Your task to perform on an android device: toggle show notifications on the lock screen Image 0: 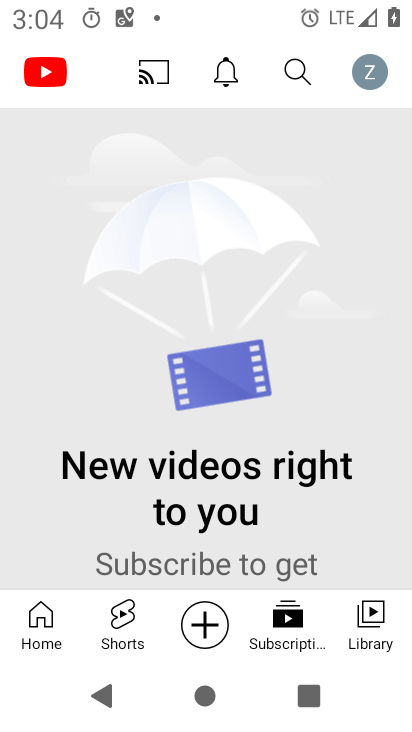
Step 0: press home button
Your task to perform on an android device: toggle show notifications on the lock screen Image 1: 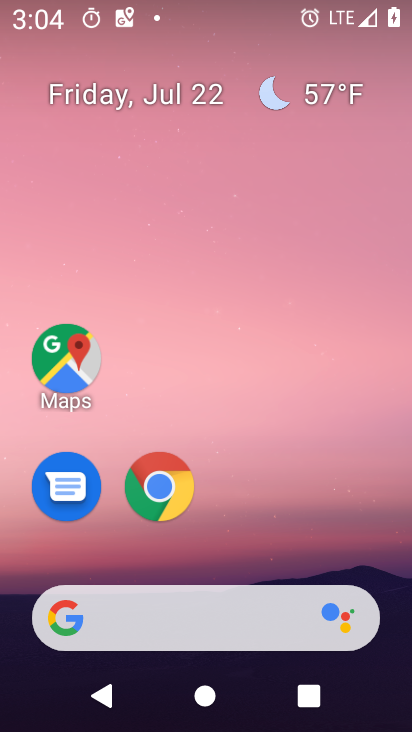
Step 1: drag from (376, 534) to (359, 168)
Your task to perform on an android device: toggle show notifications on the lock screen Image 2: 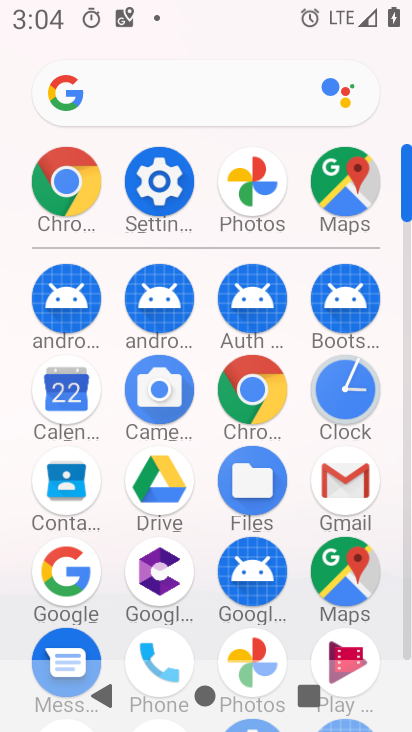
Step 2: click (170, 194)
Your task to perform on an android device: toggle show notifications on the lock screen Image 3: 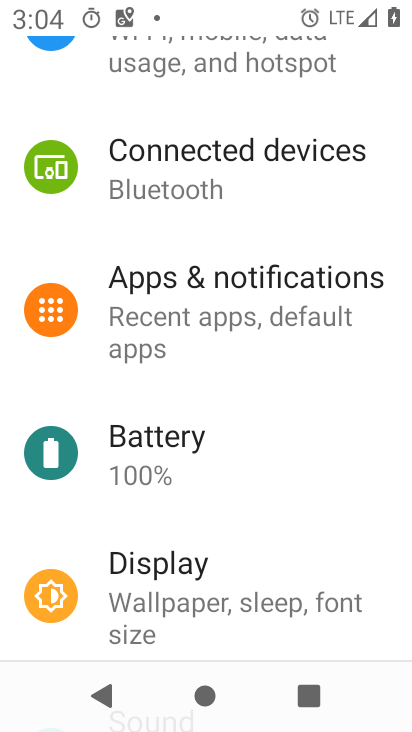
Step 3: drag from (314, 212) to (318, 286)
Your task to perform on an android device: toggle show notifications on the lock screen Image 4: 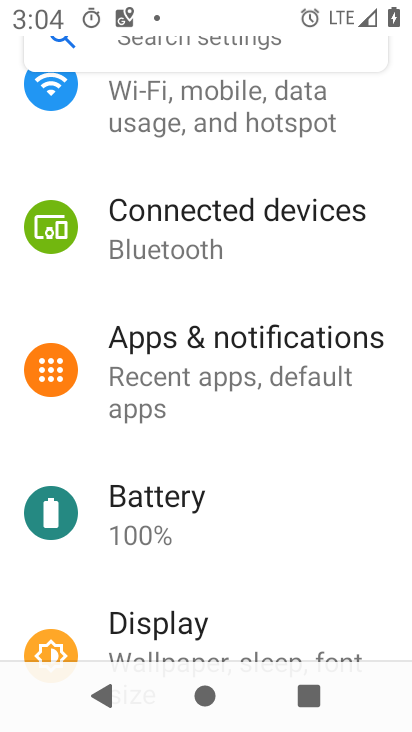
Step 4: drag from (373, 169) to (378, 311)
Your task to perform on an android device: toggle show notifications on the lock screen Image 5: 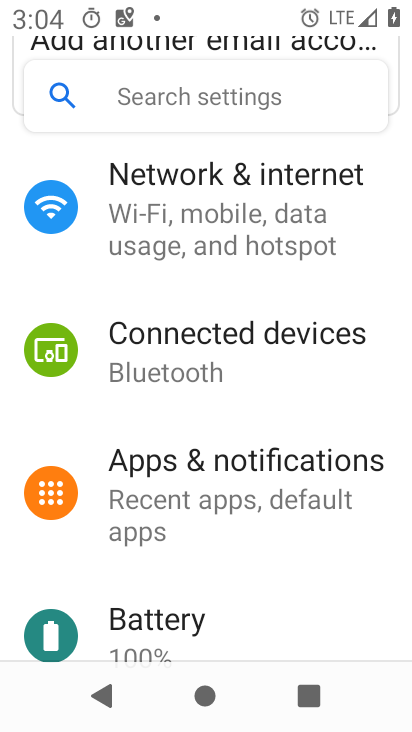
Step 5: drag from (370, 238) to (370, 453)
Your task to perform on an android device: toggle show notifications on the lock screen Image 6: 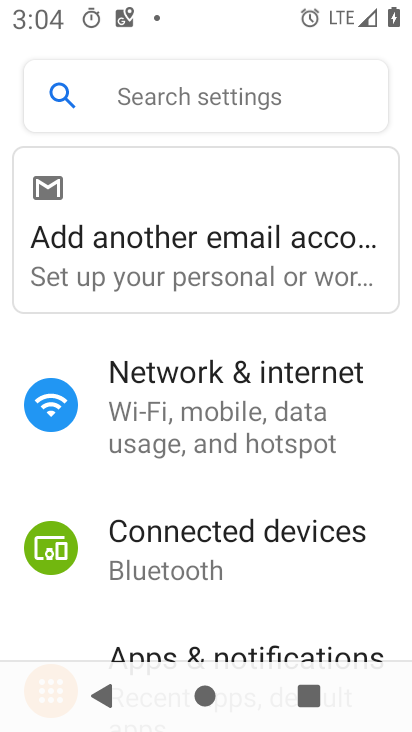
Step 6: drag from (360, 590) to (361, 511)
Your task to perform on an android device: toggle show notifications on the lock screen Image 7: 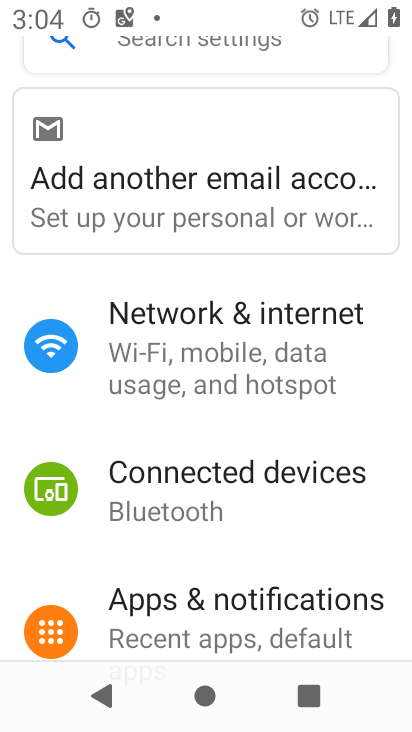
Step 7: drag from (352, 574) to (347, 443)
Your task to perform on an android device: toggle show notifications on the lock screen Image 8: 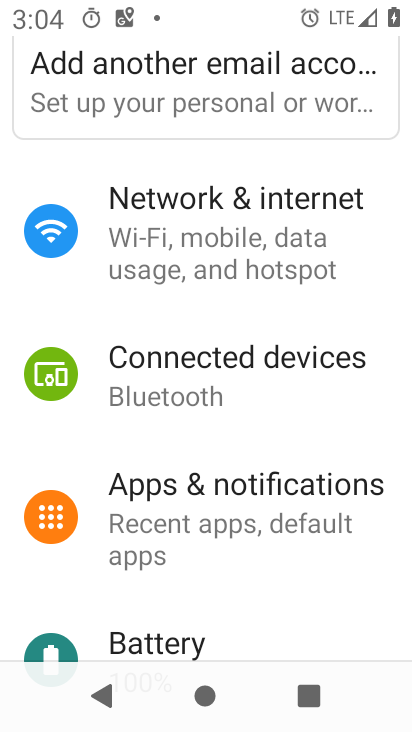
Step 8: click (333, 497)
Your task to perform on an android device: toggle show notifications on the lock screen Image 9: 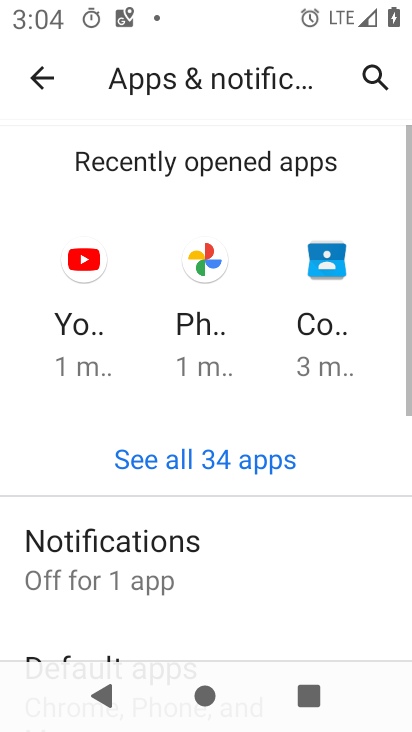
Step 9: drag from (319, 530) to (318, 443)
Your task to perform on an android device: toggle show notifications on the lock screen Image 10: 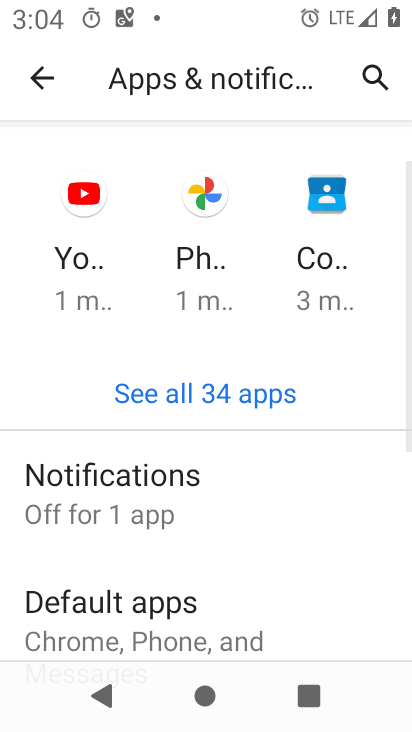
Step 10: drag from (310, 541) to (322, 425)
Your task to perform on an android device: toggle show notifications on the lock screen Image 11: 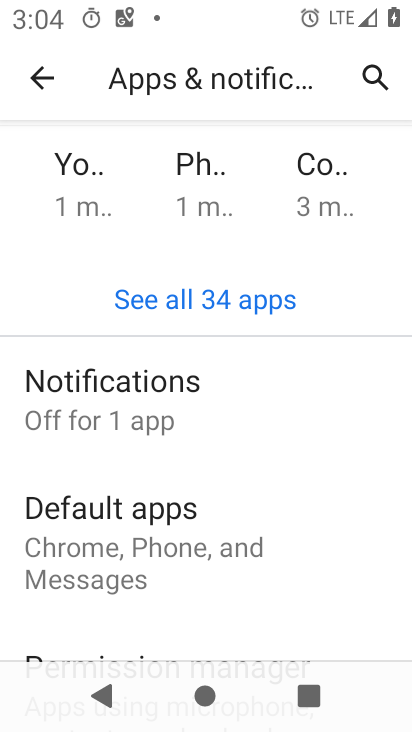
Step 11: click (289, 391)
Your task to perform on an android device: toggle show notifications on the lock screen Image 12: 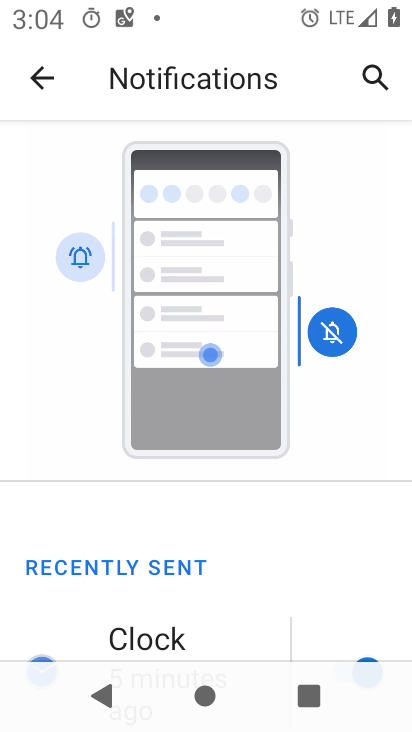
Step 12: drag from (308, 505) to (314, 391)
Your task to perform on an android device: toggle show notifications on the lock screen Image 13: 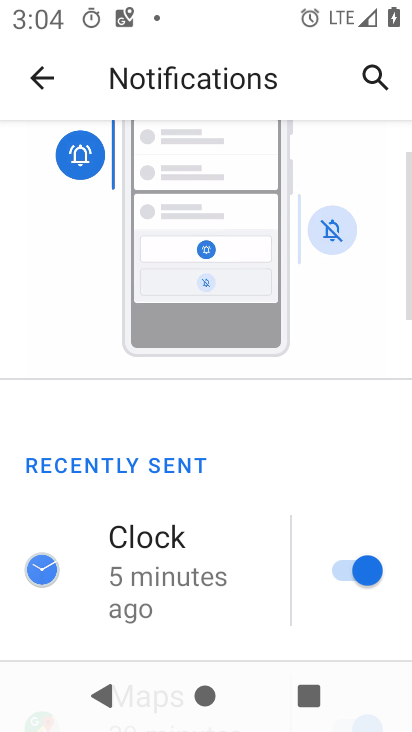
Step 13: drag from (260, 534) to (258, 420)
Your task to perform on an android device: toggle show notifications on the lock screen Image 14: 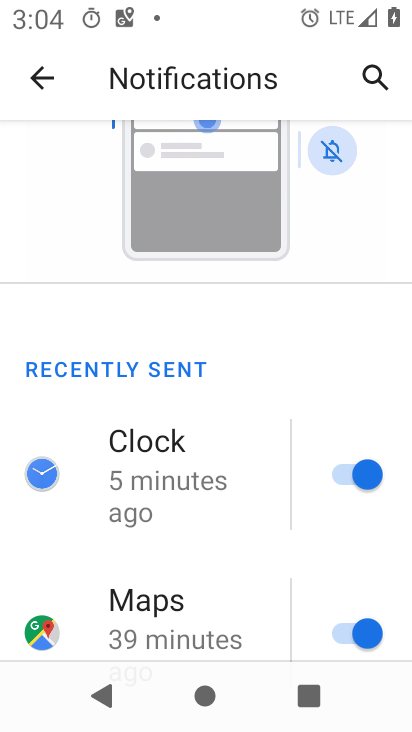
Step 14: drag from (238, 549) to (242, 427)
Your task to perform on an android device: toggle show notifications on the lock screen Image 15: 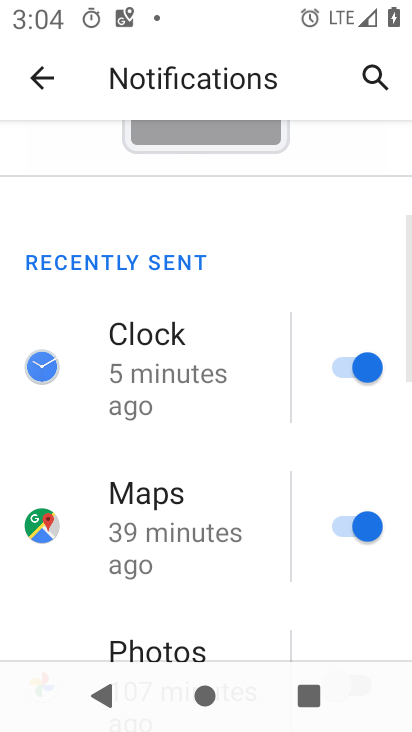
Step 15: drag from (235, 594) to (238, 471)
Your task to perform on an android device: toggle show notifications on the lock screen Image 16: 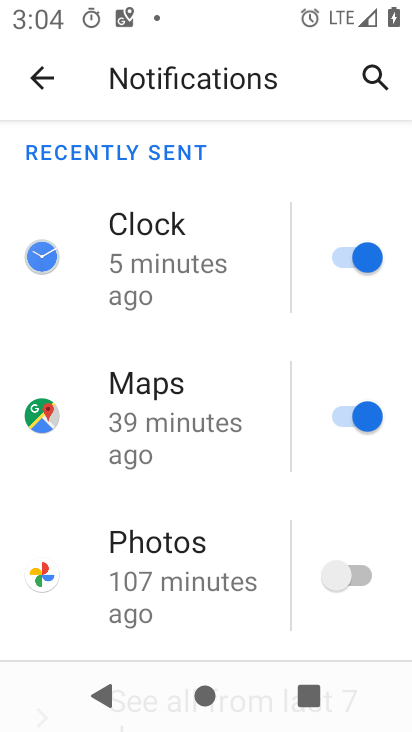
Step 16: drag from (252, 628) to (250, 497)
Your task to perform on an android device: toggle show notifications on the lock screen Image 17: 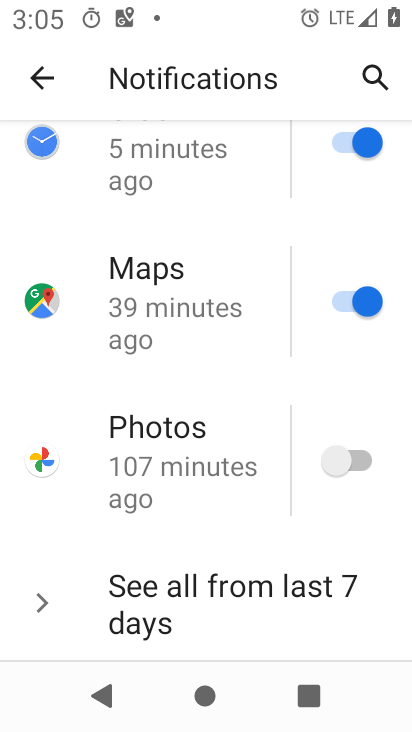
Step 17: drag from (252, 598) to (255, 491)
Your task to perform on an android device: toggle show notifications on the lock screen Image 18: 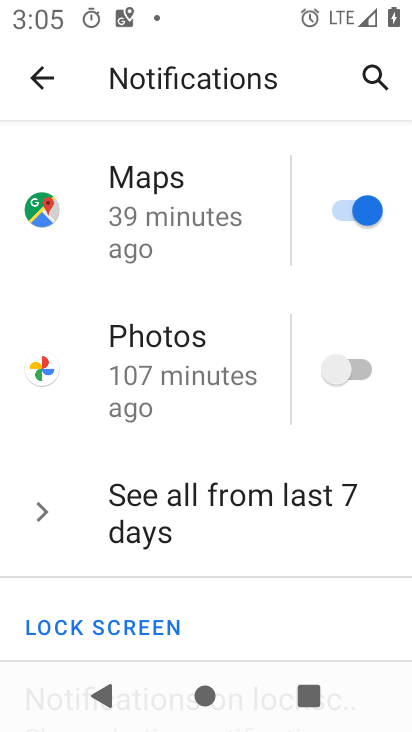
Step 18: drag from (245, 594) to (241, 472)
Your task to perform on an android device: toggle show notifications on the lock screen Image 19: 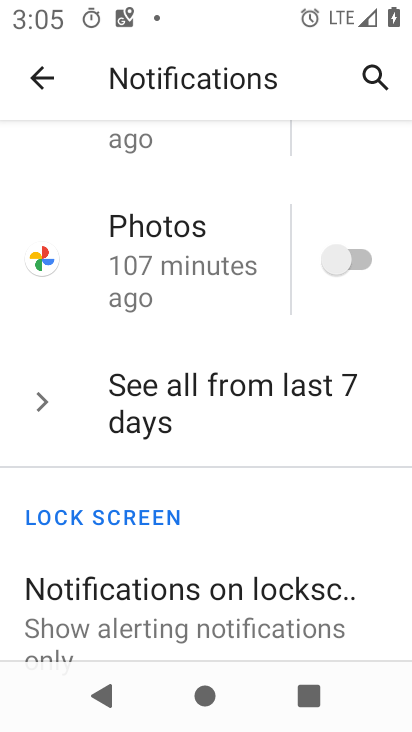
Step 19: drag from (248, 601) to (249, 463)
Your task to perform on an android device: toggle show notifications on the lock screen Image 20: 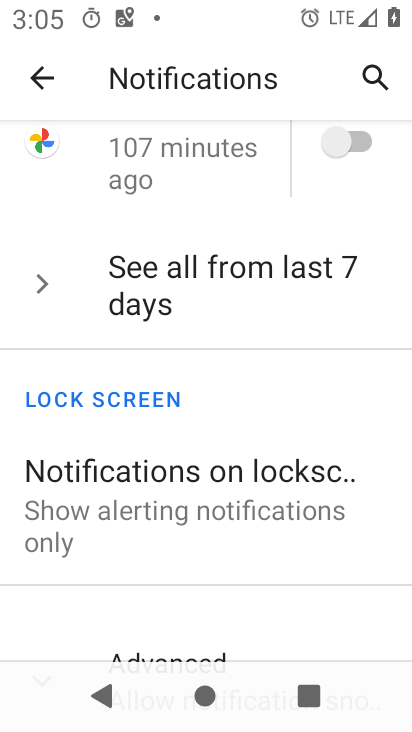
Step 20: click (238, 514)
Your task to perform on an android device: toggle show notifications on the lock screen Image 21: 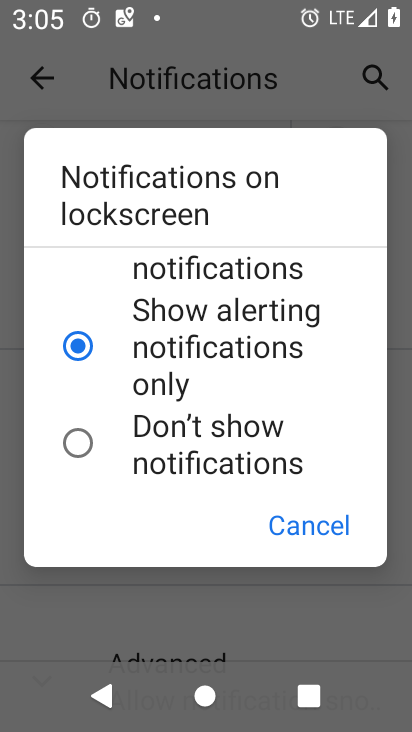
Step 21: drag from (340, 286) to (340, 502)
Your task to perform on an android device: toggle show notifications on the lock screen Image 22: 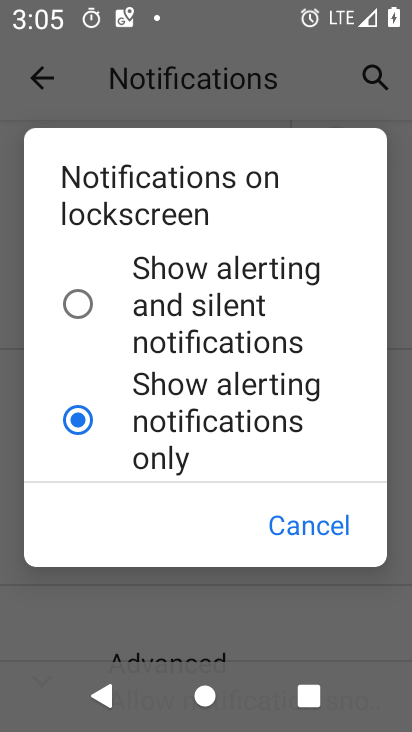
Step 22: click (231, 278)
Your task to perform on an android device: toggle show notifications on the lock screen Image 23: 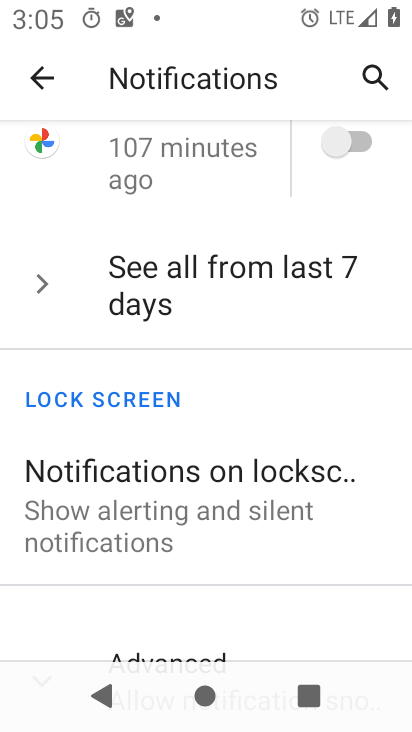
Step 23: task complete